Your task to perform on an android device: find photos in the google photos app Image 0: 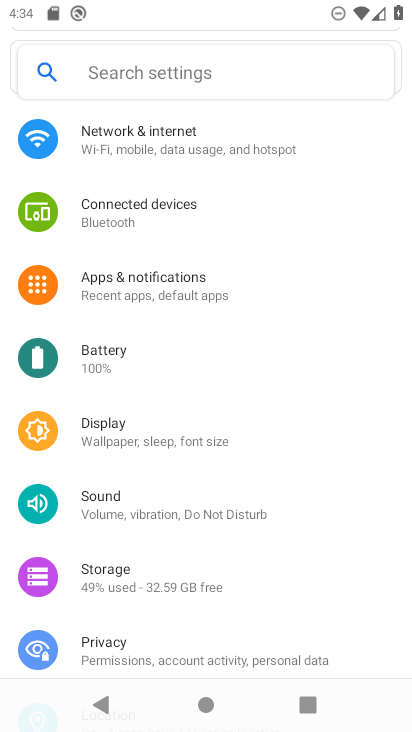
Step 0: press home button
Your task to perform on an android device: find photos in the google photos app Image 1: 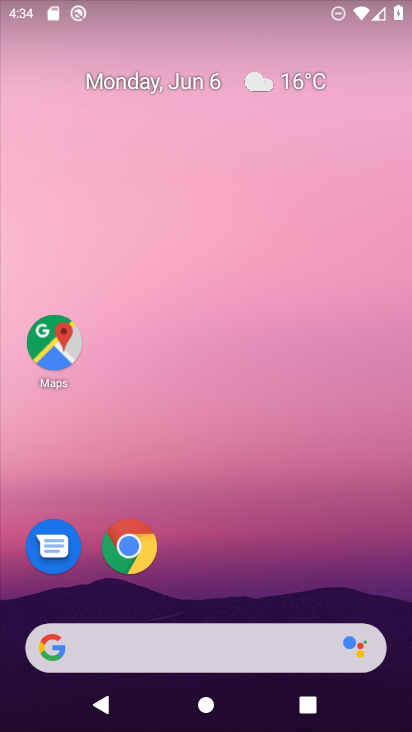
Step 1: drag from (229, 590) to (240, 195)
Your task to perform on an android device: find photos in the google photos app Image 2: 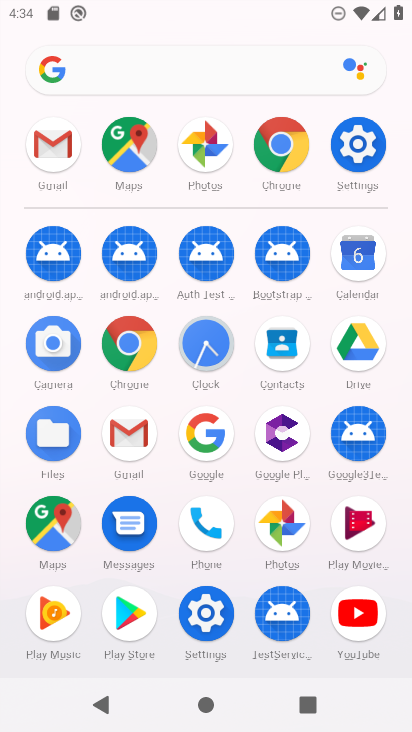
Step 2: click (277, 516)
Your task to perform on an android device: find photos in the google photos app Image 3: 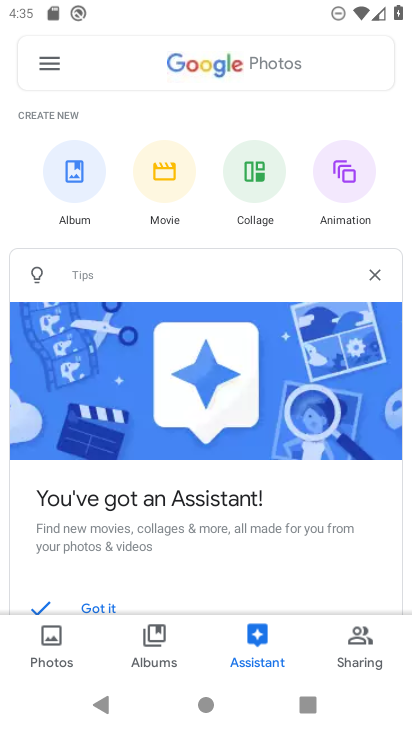
Step 3: click (57, 651)
Your task to perform on an android device: find photos in the google photos app Image 4: 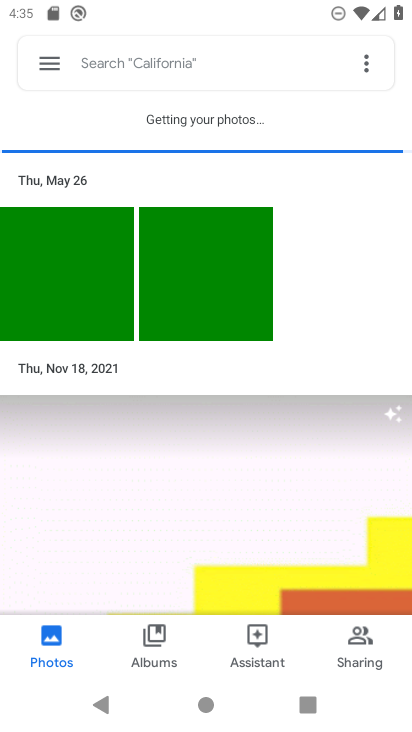
Step 4: task complete